Your task to perform on an android device: Go to network settings Image 0: 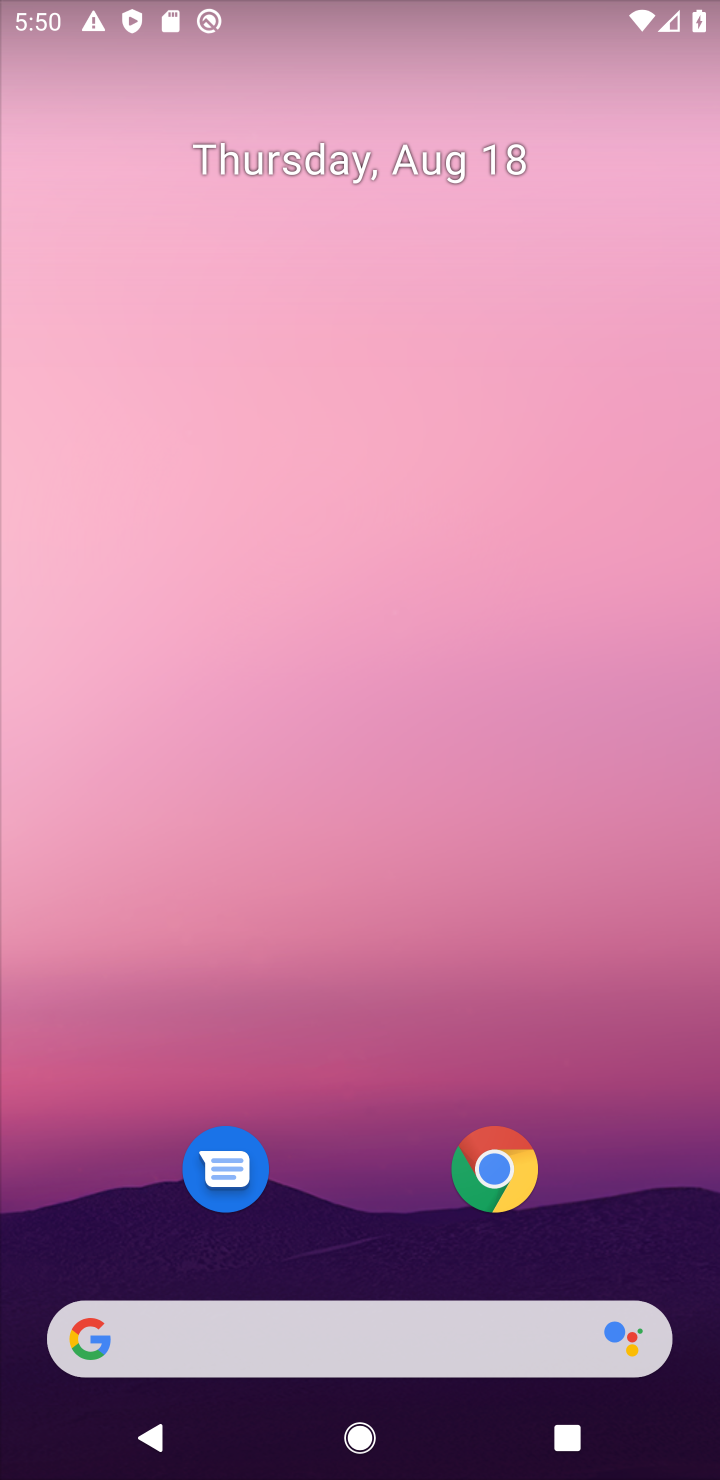
Step 0: press home button
Your task to perform on an android device: Go to network settings Image 1: 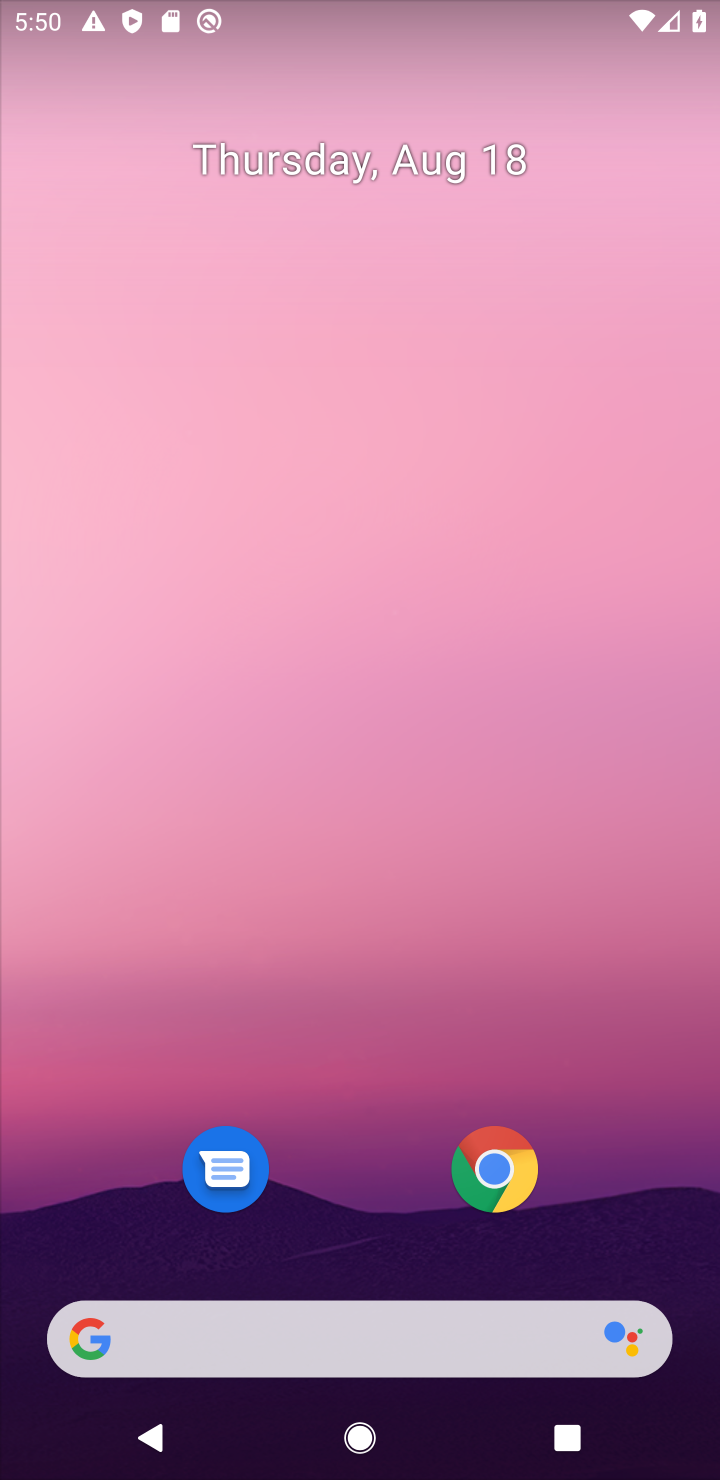
Step 1: drag from (380, 1179) to (402, 56)
Your task to perform on an android device: Go to network settings Image 2: 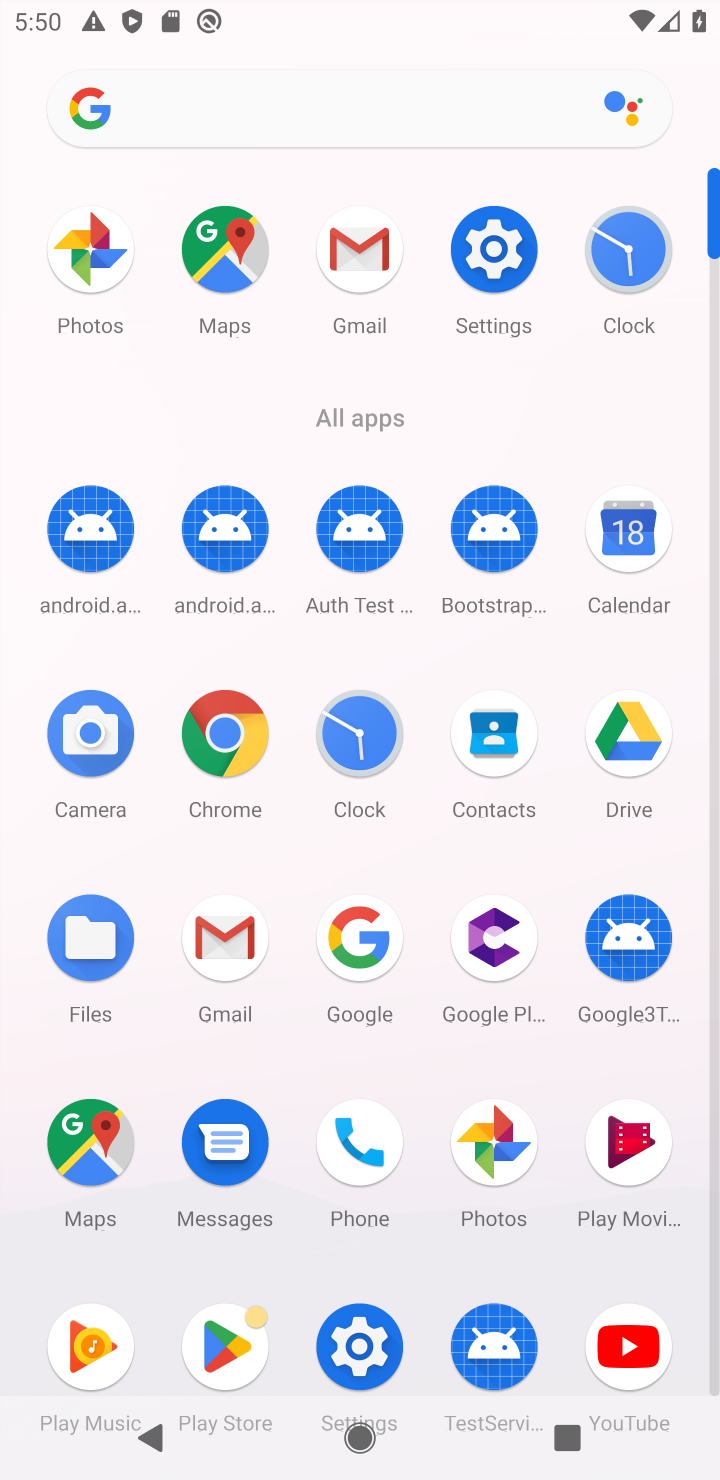
Step 2: click (485, 265)
Your task to perform on an android device: Go to network settings Image 3: 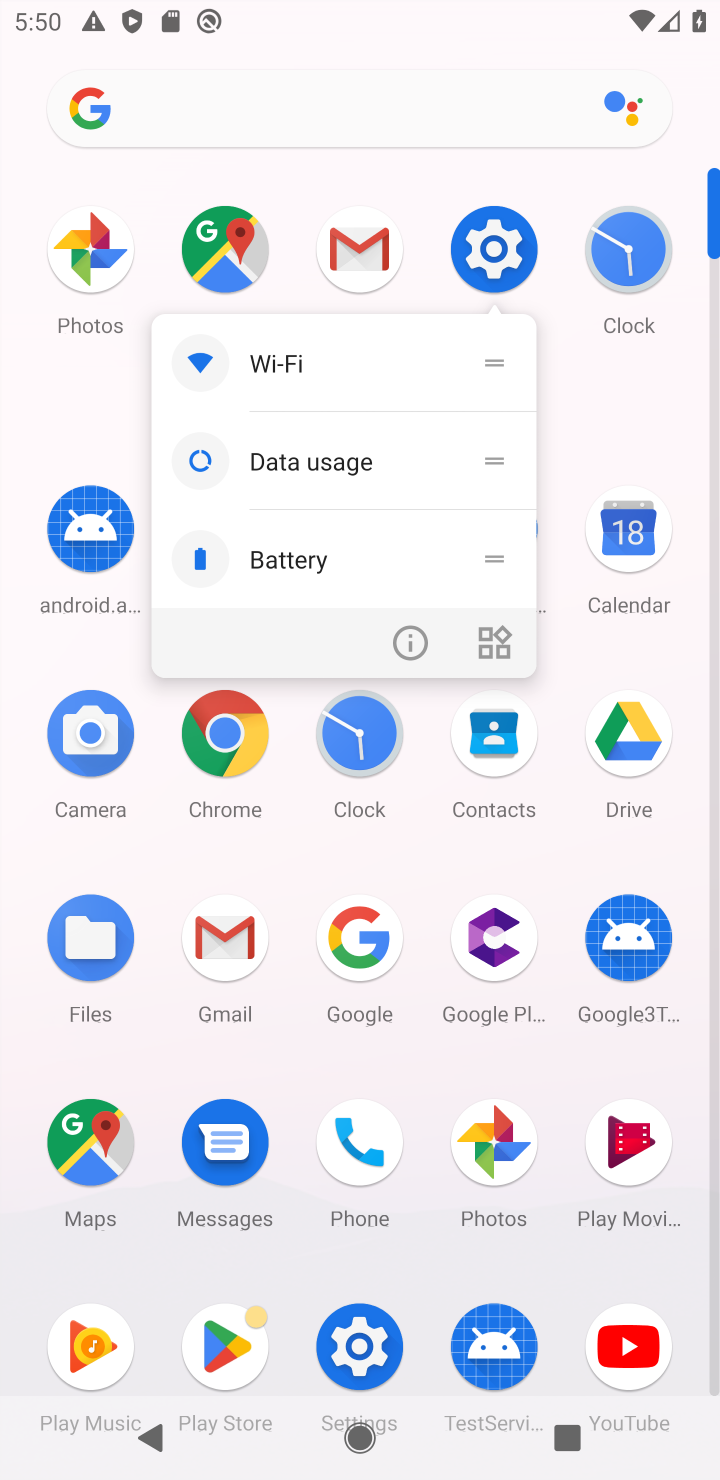
Step 3: click (503, 265)
Your task to perform on an android device: Go to network settings Image 4: 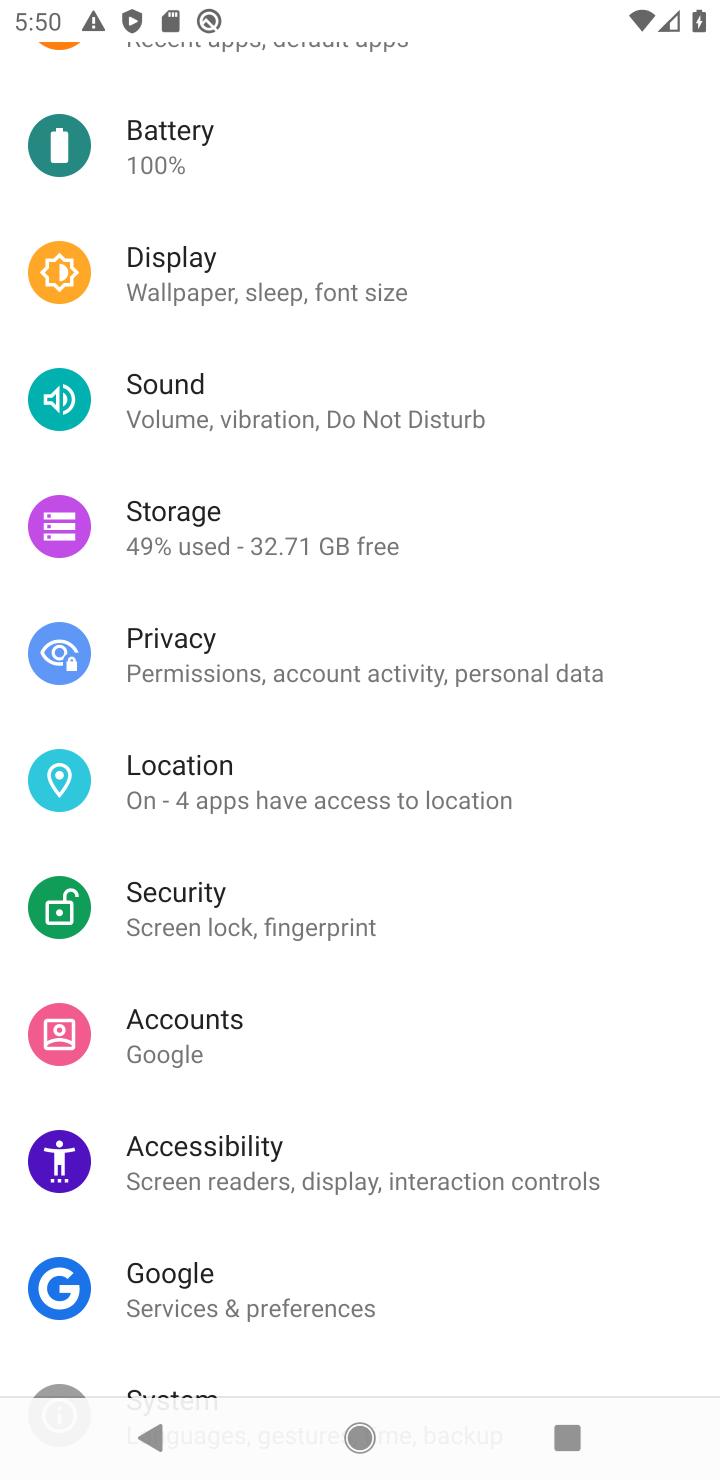
Step 4: drag from (395, 227) to (452, 1324)
Your task to perform on an android device: Go to network settings Image 5: 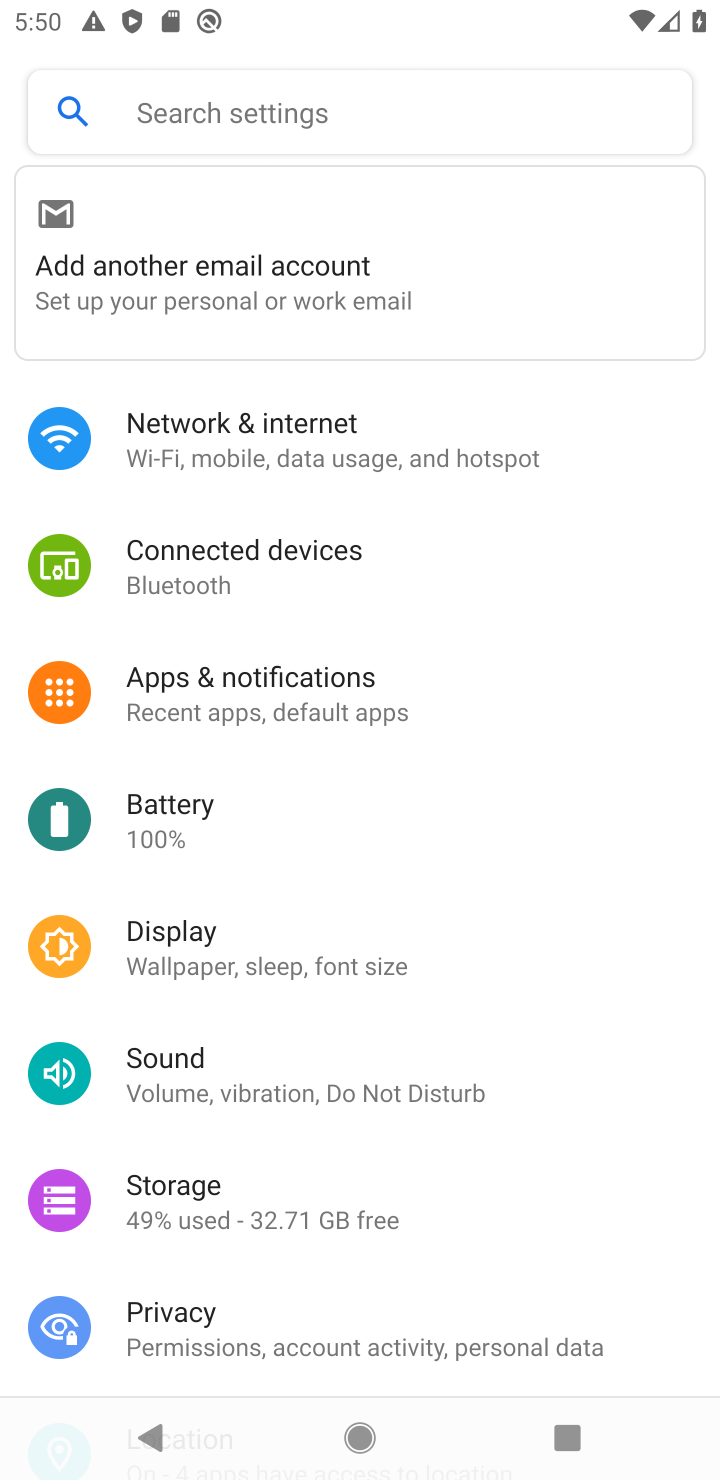
Step 5: click (204, 466)
Your task to perform on an android device: Go to network settings Image 6: 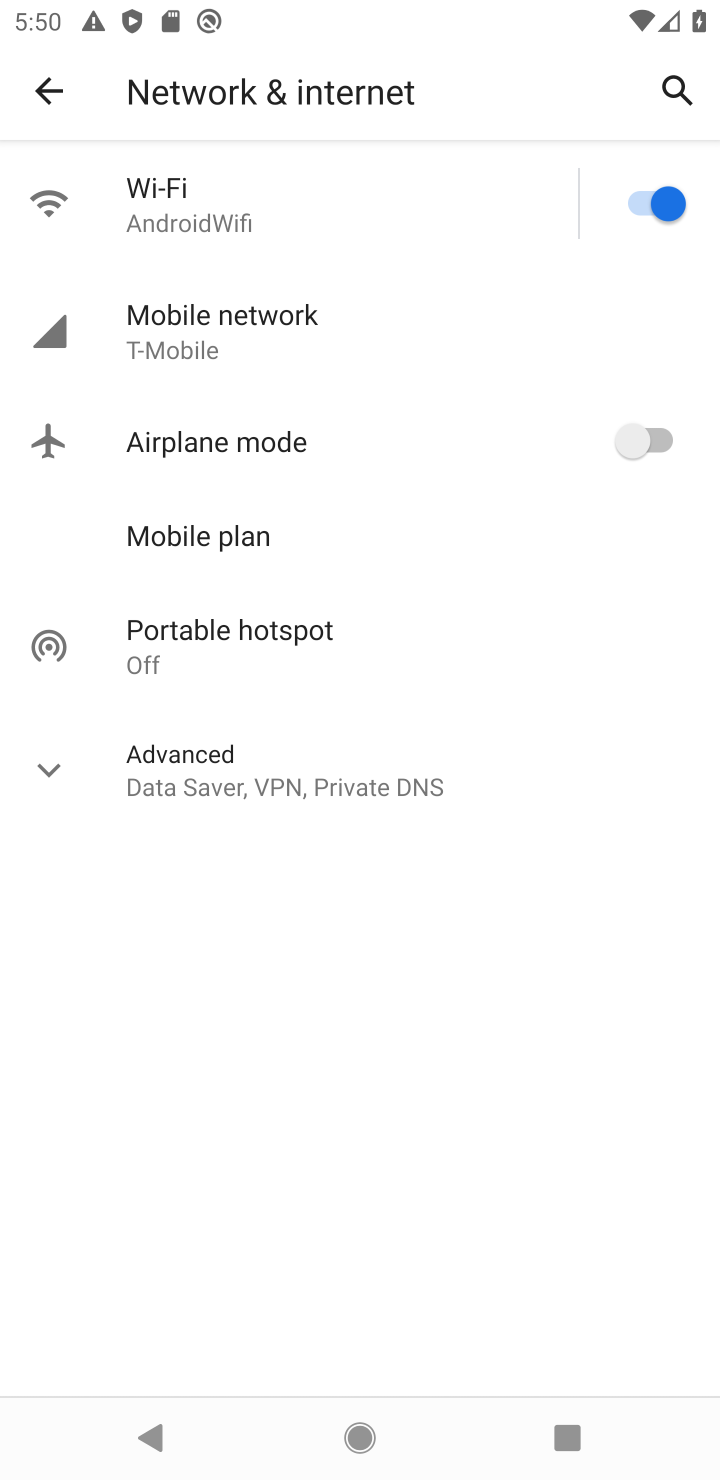
Step 6: task complete